Your task to perform on an android device: check android version Image 0: 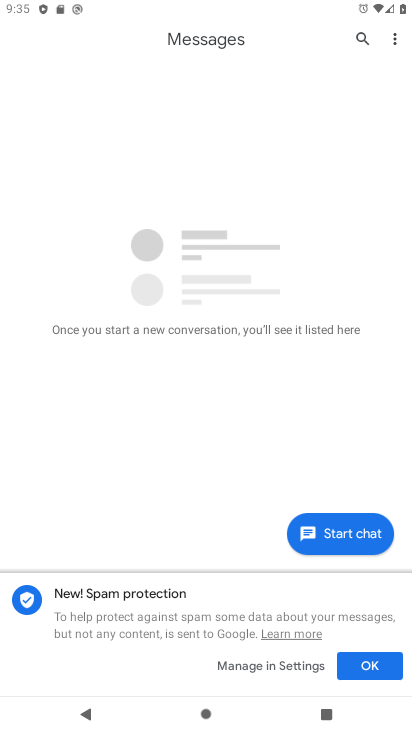
Step 0: press back button
Your task to perform on an android device: check android version Image 1: 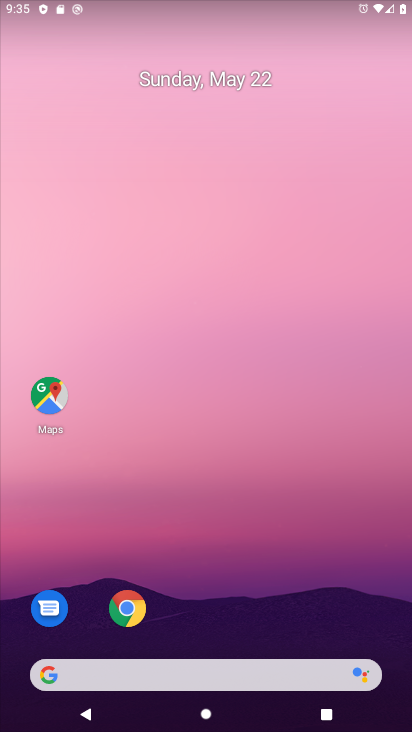
Step 1: drag from (226, 579) to (218, 28)
Your task to perform on an android device: check android version Image 2: 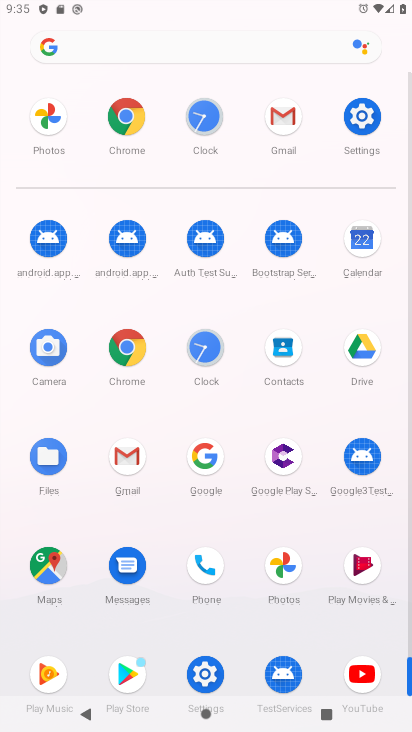
Step 2: drag from (14, 581) to (3, 189)
Your task to perform on an android device: check android version Image 3: 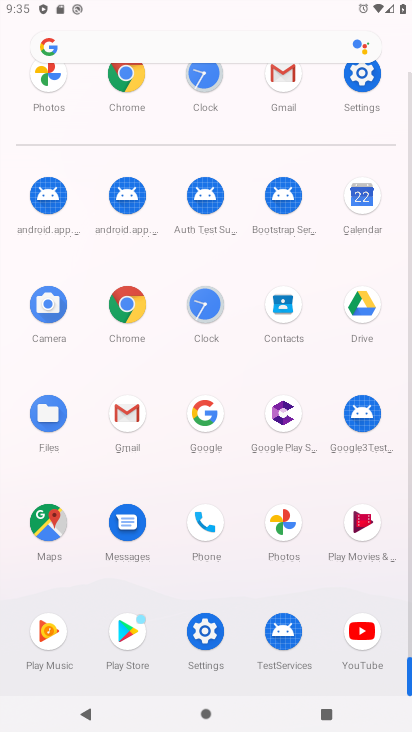
Step 3: click (203, 631)
Your task to perform on an android device: check android version Image 4: 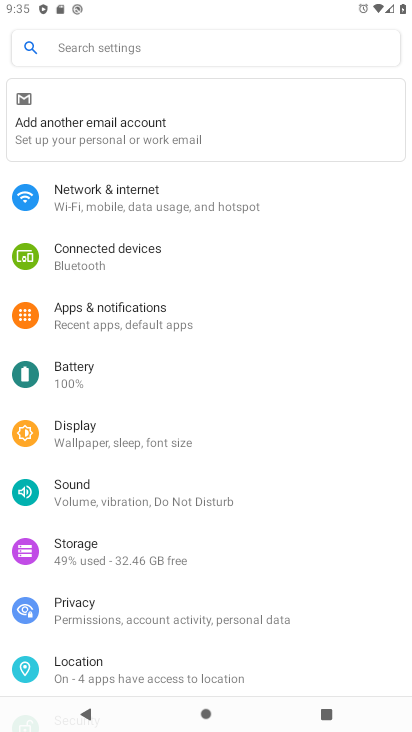
Step 4: drag from (250, 566) to (232, 119)
Your task to perform on an android device: check android version Image 5: 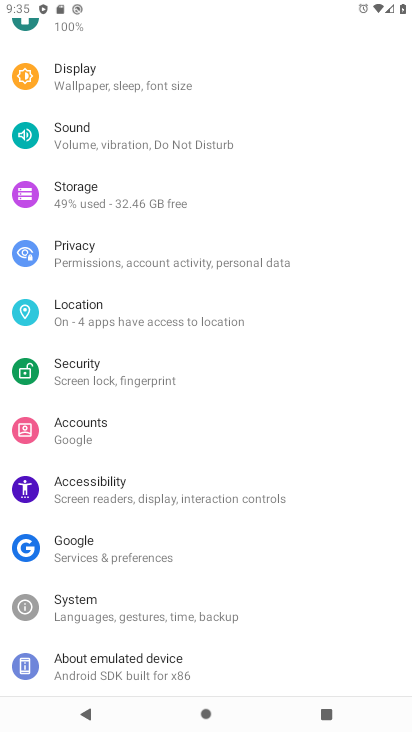
Step 5: drag from (224, 568) to (227, 129)
Your task to perform on an android device: check android version Image 6: 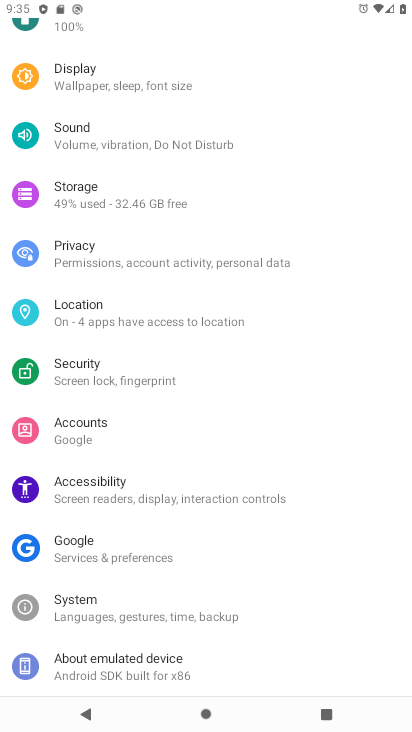
Step 6: click (121, 656)
Your task to perform on an android device: check android version Image 7: 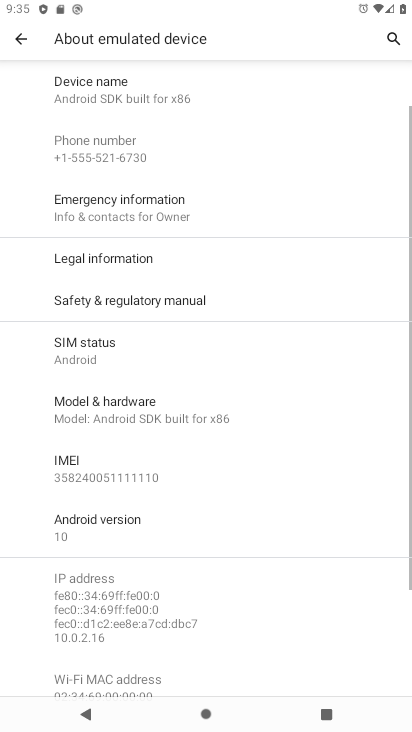
Step 7: task complete